Your task to perform on an android device: read, delete, or share a saved page in the chrome app Image 0: 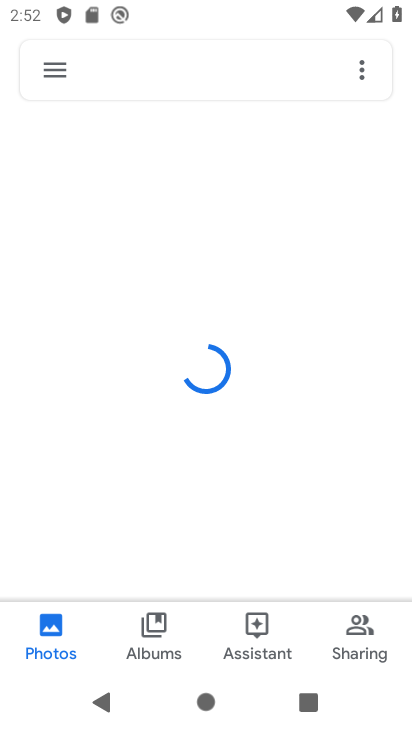
Step 0: press back button
Your task to perform on an android device: read, delete, or share a saved page in the chrome app Image 1: 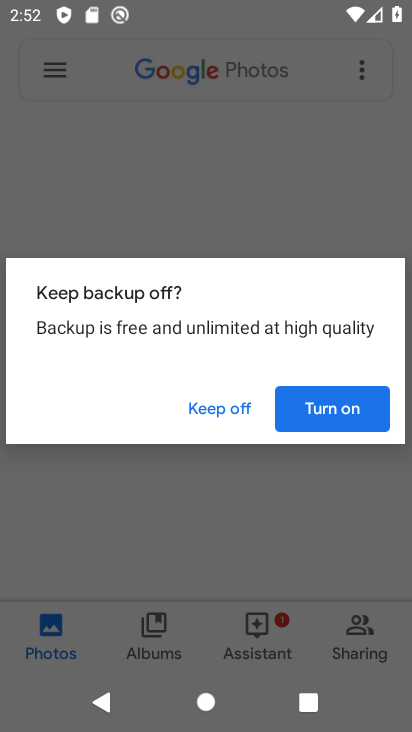
Step 1: click (224, 405)
Your task to perform on an android device: read, delete, or share a saved page in the chrome app Image 2: 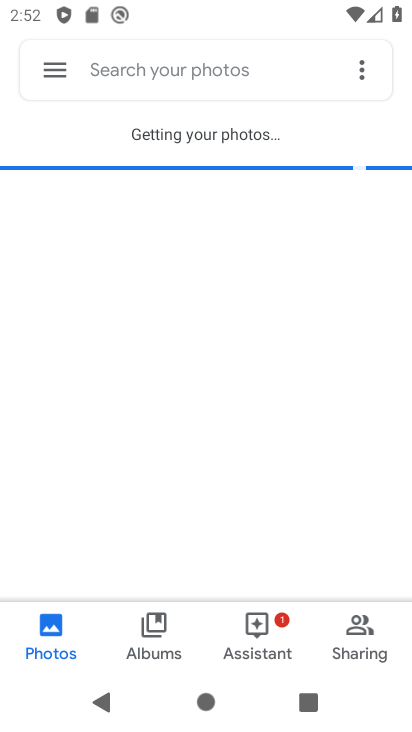
Step 2: press back button
Your task to perform on an android device: read, delete, or share a saved page in the chrome app Image 3: 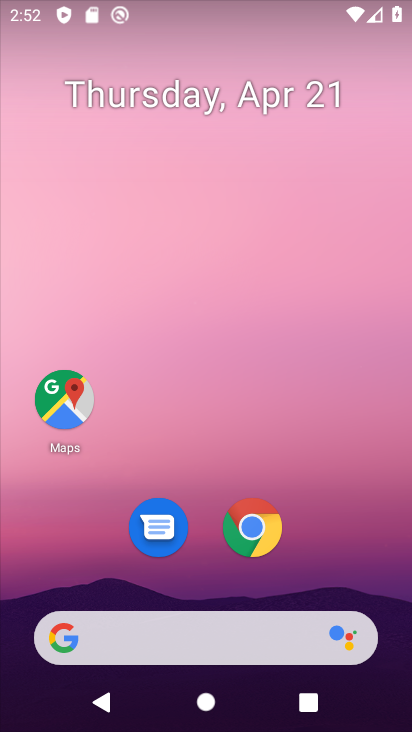
Step 3: drag from (160, 605) to (323, 93)
Your task to perform on an android device: read, delete, or share a saved page in the chrome app Image 4: 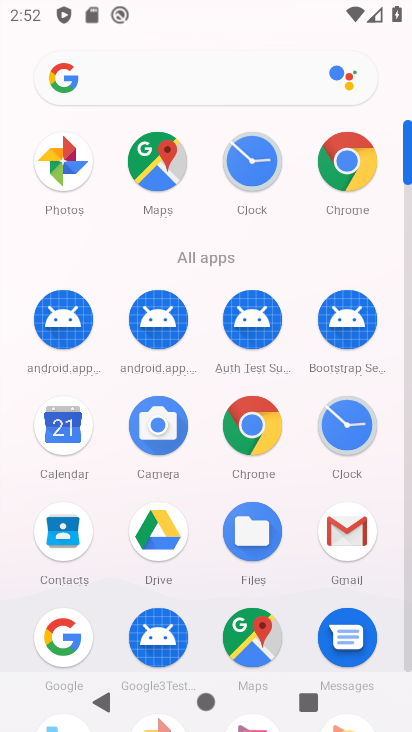
Step 4: click (280, 431)
Your task to perform on an android device: read, delete, or share a saved page in the chrome app Image 5: 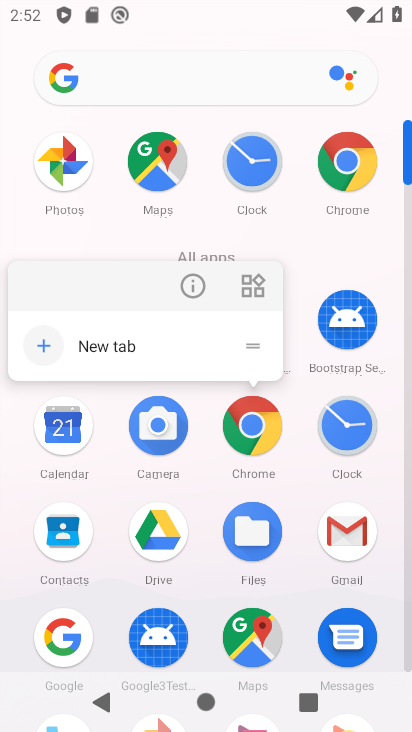
Step 5: click (262, 434)
Your task to perform on an android device: read, delete, or share a saved page in the chrome app Image 6: 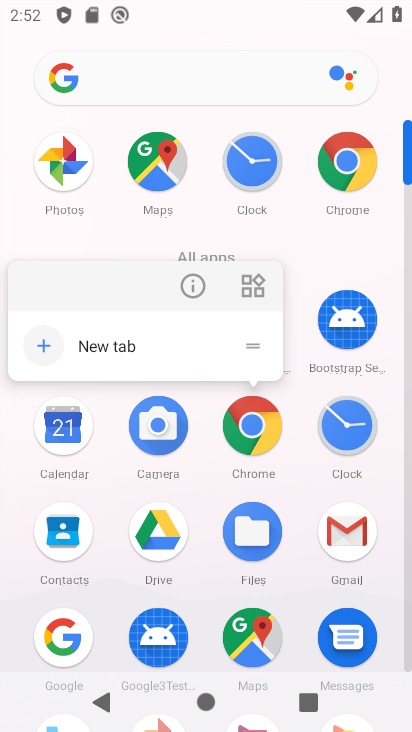
Step 6: click (245, 432)
Your task to perform on an android device: read, delete, or share a saved page in the chrome app Image 7: 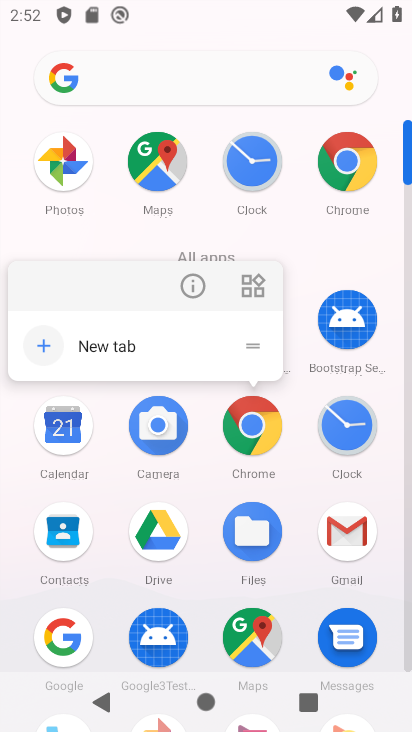
Step 7: click (254, 432)
Your task to perform on an android device: read, delete, or share a saved page in the chrome app Image 8: 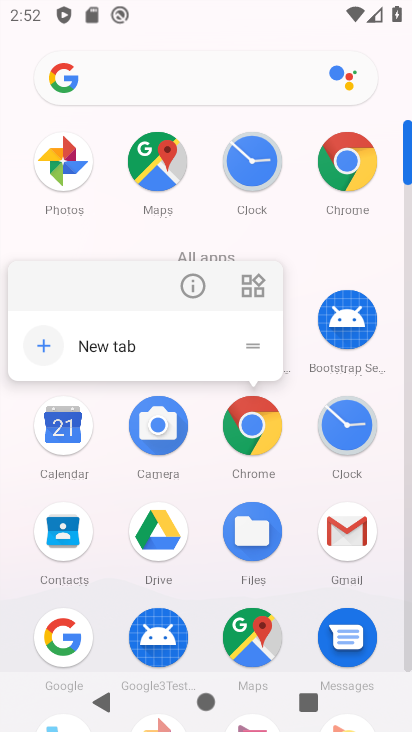
Step 8: click (254, 436)
Your task to perform on an android device: read, delete, or share a saved page in the chrome app Image 9: 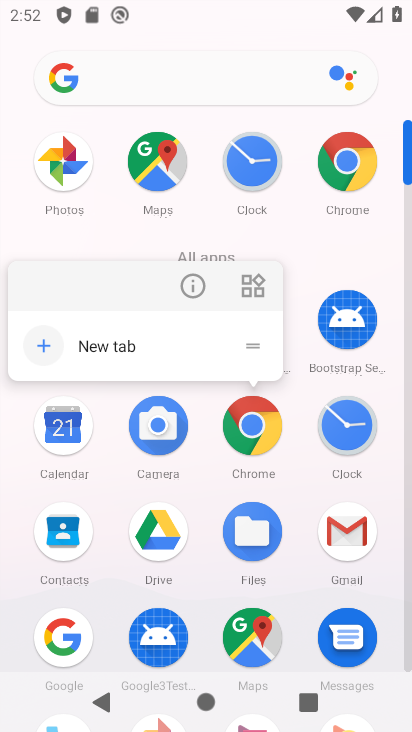
Step 9: click (249, 433)
Your task to perform on an android device: read, delete, or share a saved page in the chrome app Image 10: 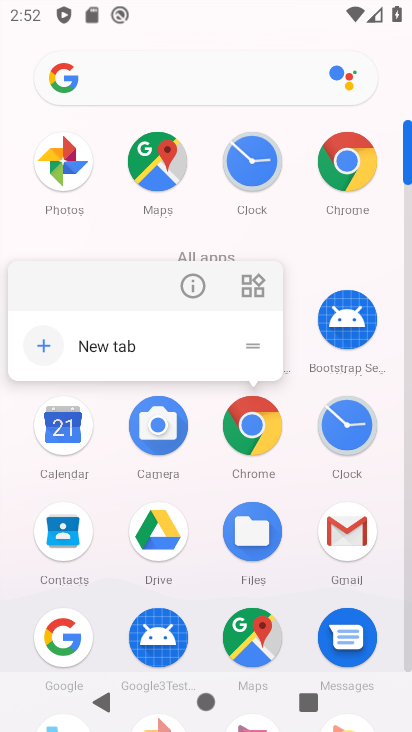
Step 10: click (249, 429)
Your task to perform on an android device: read, delete, or share a saved page in the chrome app Image 11: 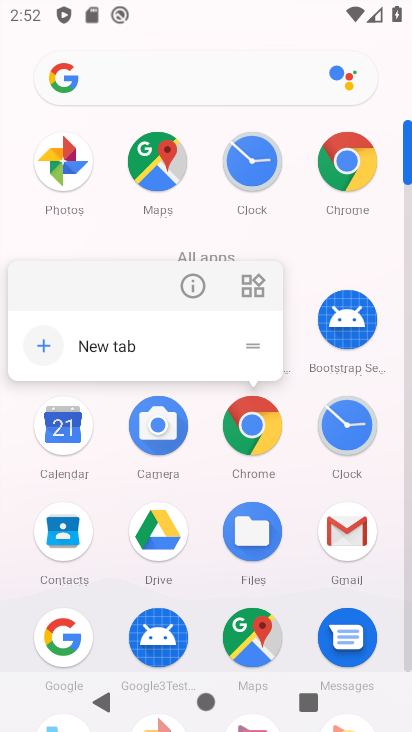
Step 11: click (253, 429)
Your task to perform on an android device: read, delete, or share a saved page in the chrome app Image 12: 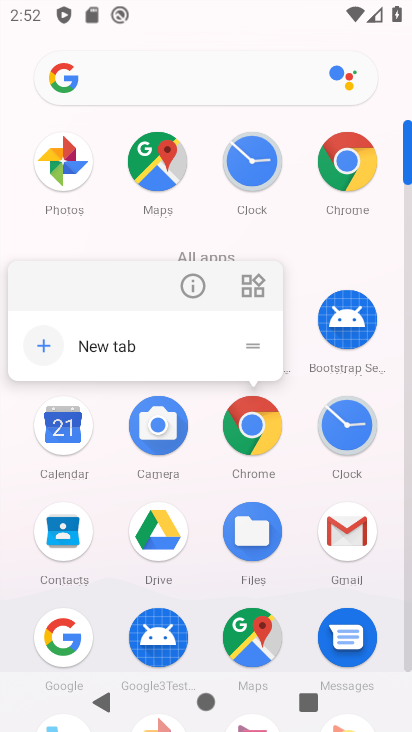
Step 12: click (257, 434)
Your task to perform on an android device: read, delete, or share a saved page in the chrome app Image 13: 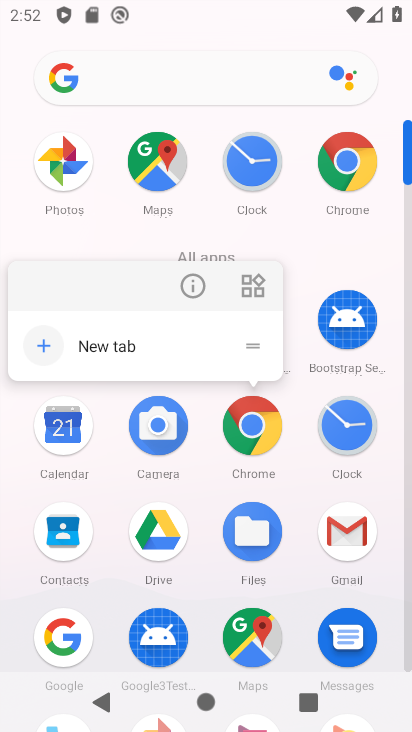
Step 13: click (258, 435)
Your task to perform on an android device: read, delete, or share a saved page in the chrome app Image 14: 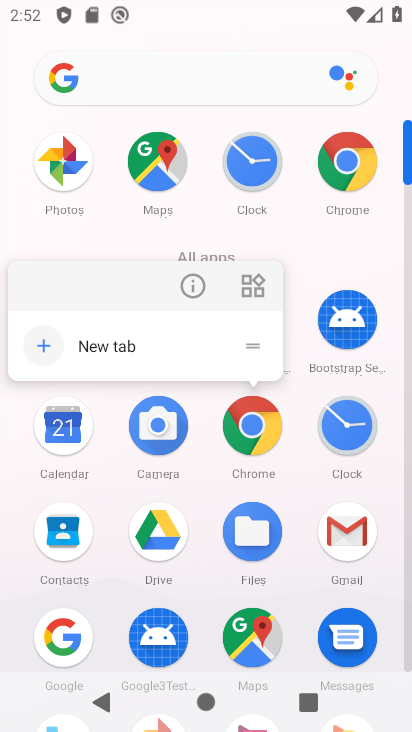
Step 14: click (251, 428)
Your task to perform on an android device: read, delete, or share a saved page in the chrome app Image 15: 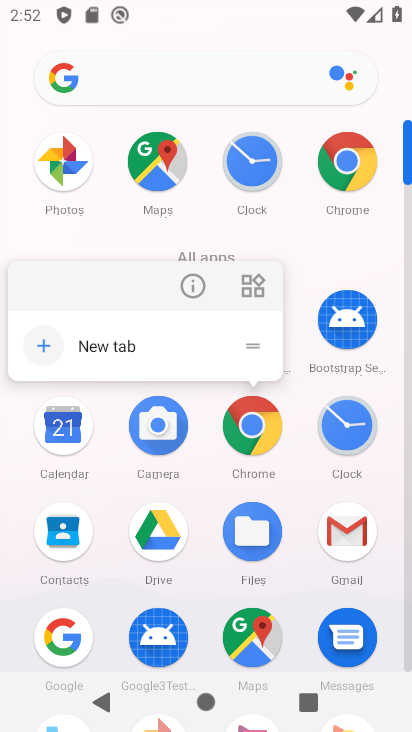
Step 15: click (257, 437)
Your task to perform on an android device: read, delete, or share a saved page in the chrome app Image 16: 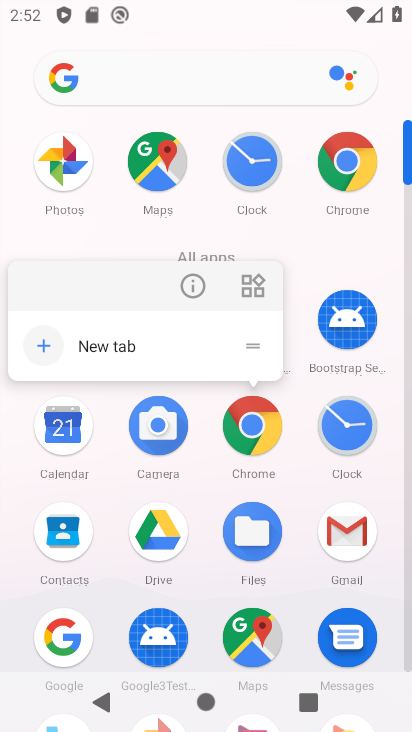
Step 16: click (252, 454)
Your task to perform on an android device: read, delete, or share a saved page in the chrome app Image 17: 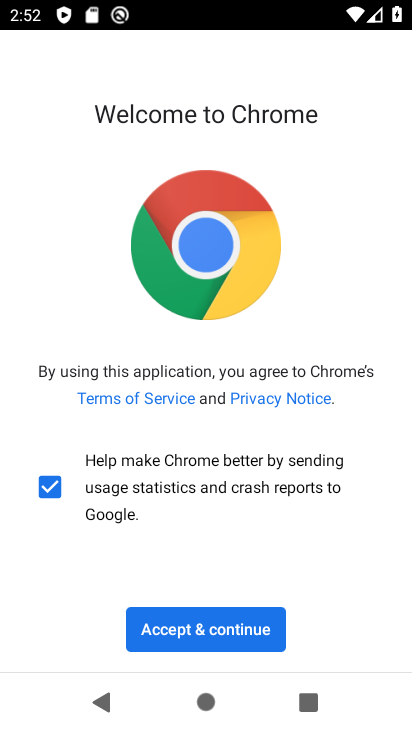
Step 17: click (231, 627)
Your task to perform on an android device: read, delete, or share a saved page in the chrome app Image 18: 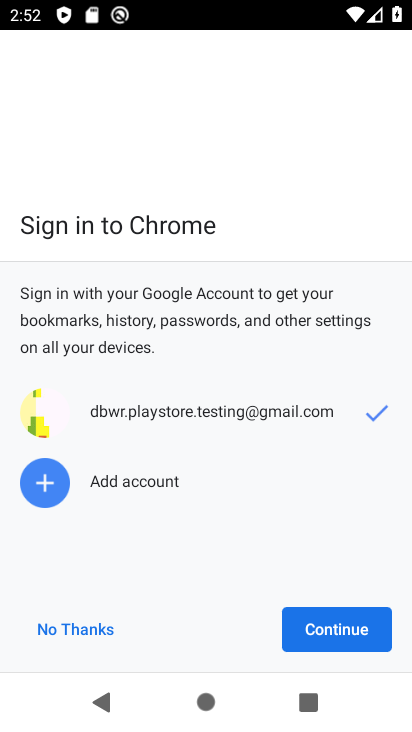
Step 18: click (314, 626)
Your task to perform on an android device: read, delete, or share a saved page in the chrome app Image 19: 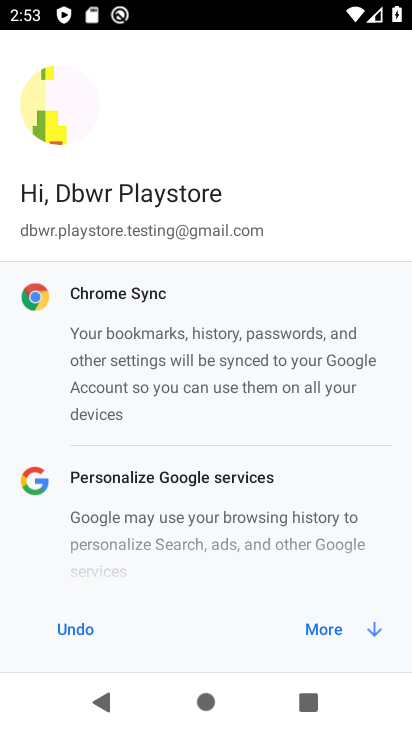
Step 19: click (347, 618)
Your task to perform on an android device: read, delete, or share a saved page in the chrome app Image 20: 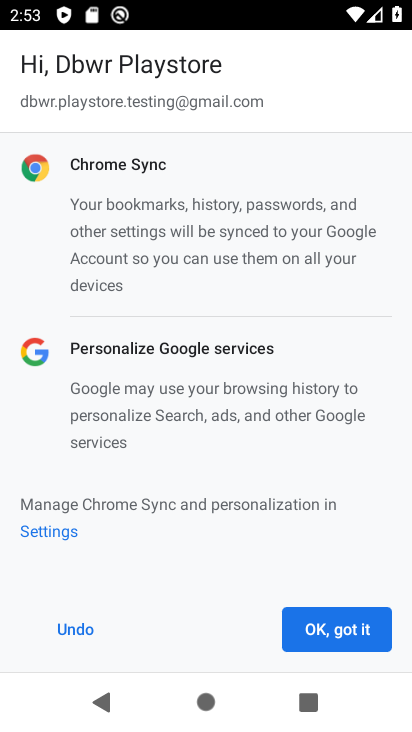
Step 20: click (329, 623)
Your task to perform on an android device: read, delete, or share a saved page in the chrome app Image 21: 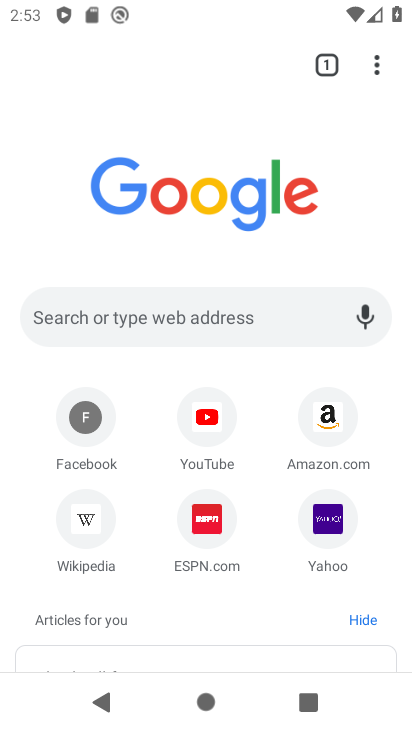
Step 21: drag from (393, 69) to (301, 419)
Your task to perform on an android device: read, delete, or share a saved page in the chrome app Image 22: 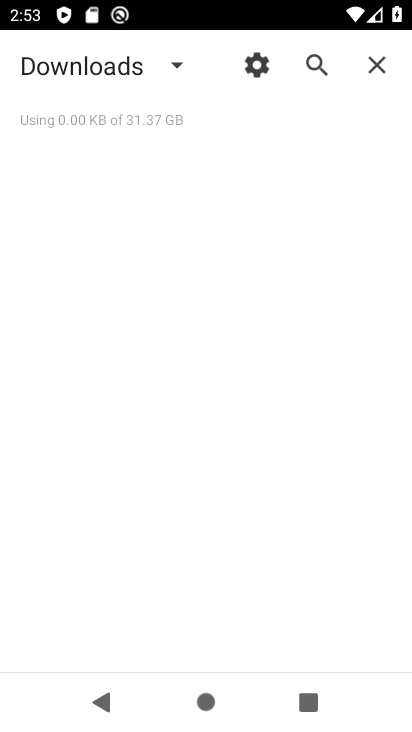
Step 22: click (125, 79)
Your task to perform on an android device: read, delete, or share a saved page in the chrome app Image 23: 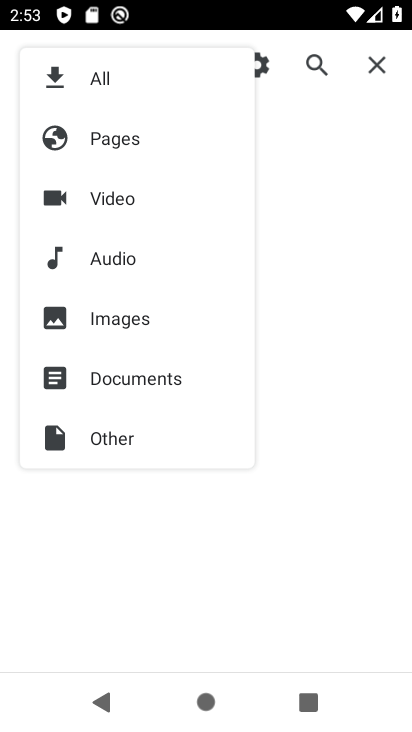
Step 23: click (142, 144)
Your task to perform on an android device: read, delete, or share a saved page in the chrome app Image 24: 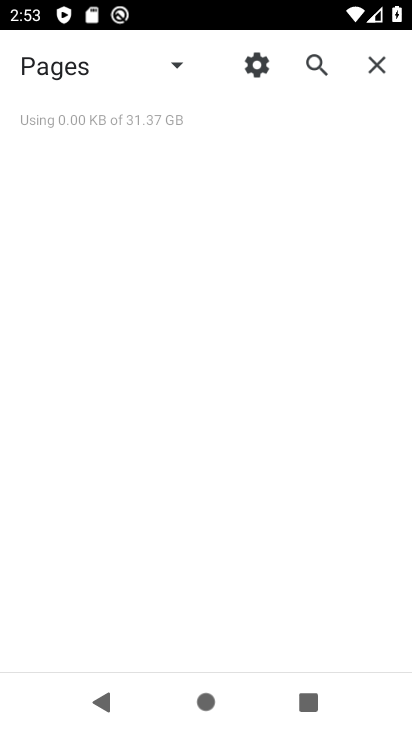
Step 24: task complete